Your task to perform on an android device: Turn off the flashlight Image 0: 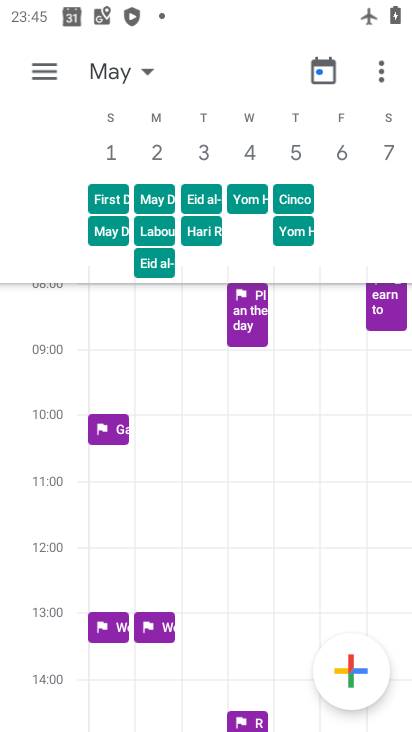
Step 0: press home button
Your task to perform on an android device: Turn off the flashlight Image 1: 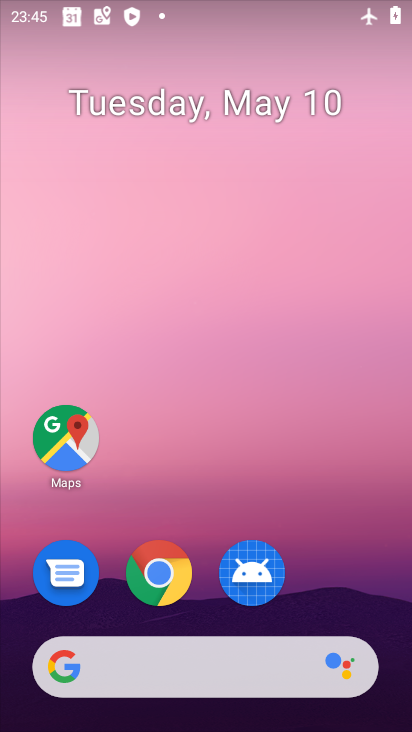
Step 1: drag from (173, 507) to (91, 54)
Your task to perform on an android device: Turn off the flashlight Image 2: 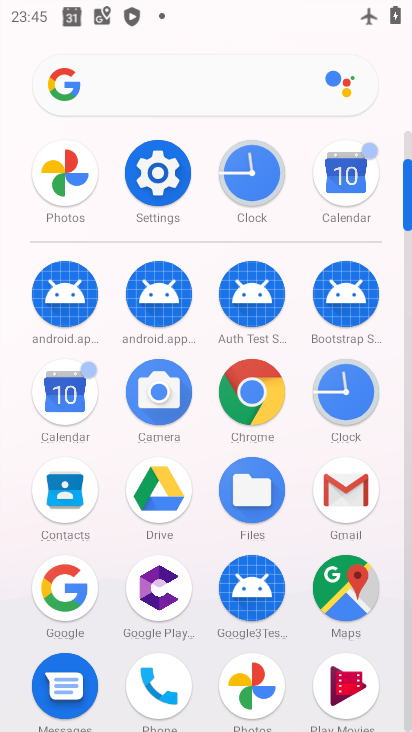
Step 2: click (153, 173)
Your task to perform on an android device: Turn off the flashlight Image 3: 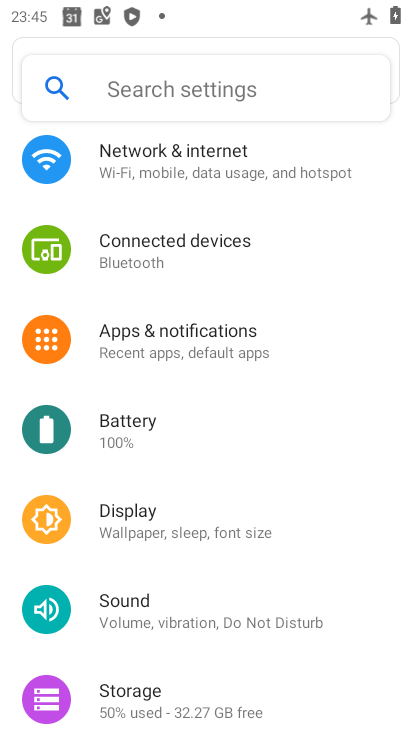
Step 3: click (114, 506)
Your task to perform on an android device: Turn off the flashlight Image 4: 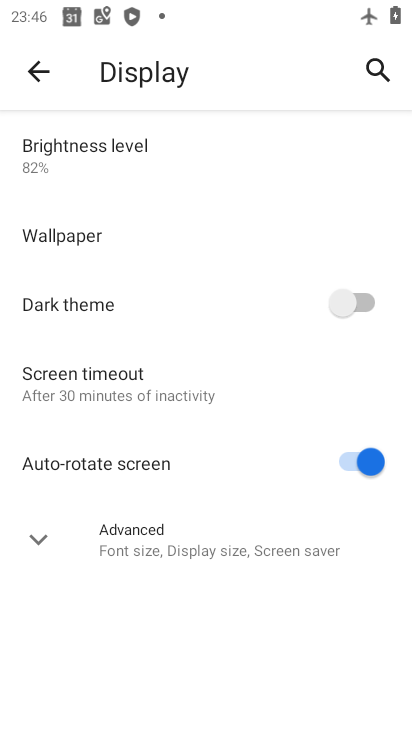
Step 4: click (31, 72)
Your task to perform on an android device: Turn off the flashlight Image 5: 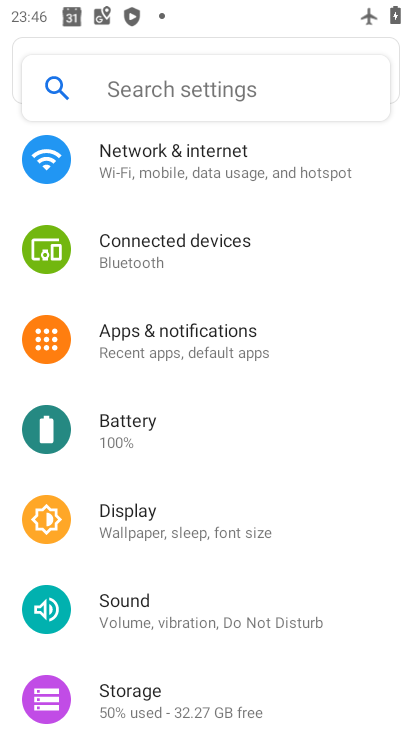
Step 5: task complete